Your task to perform on an android device: Open accessibility settings Image 0: 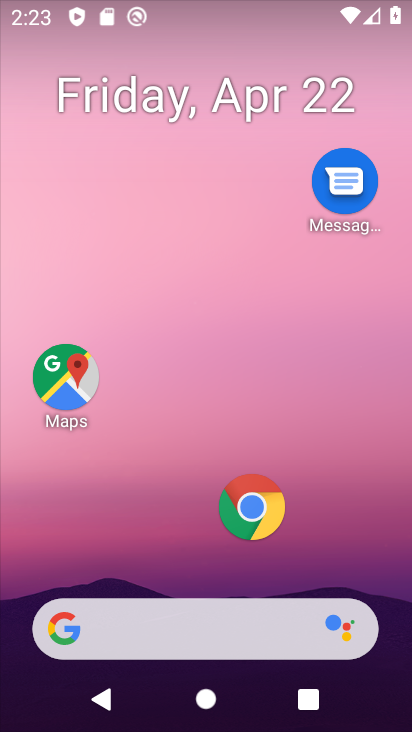
Step 0: drag from (175, 565) to (204, 78)
Your task to perform on an android device: Open accessibility settings Image 1: 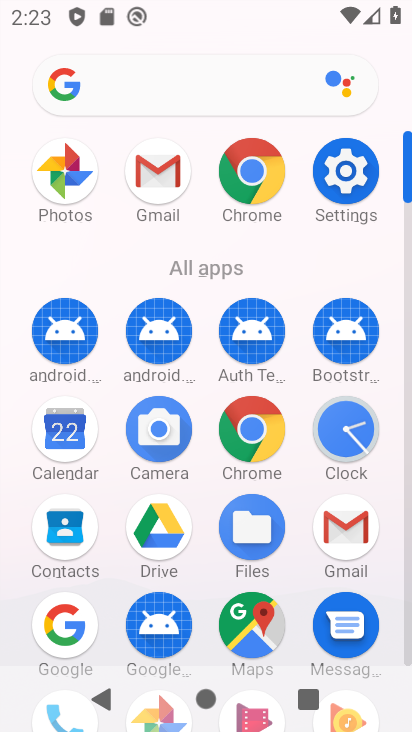
Step 1: click (344, 187)
Your task to perform on an android device: Open accessibility settings Image 2: 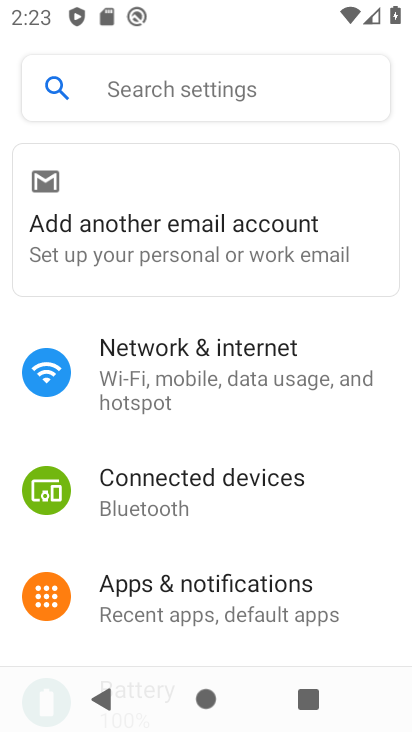
Step 2: drag from (185, 603) to (228, 416)
Your task to perform on an android device: Open accessibility settings Image 3: 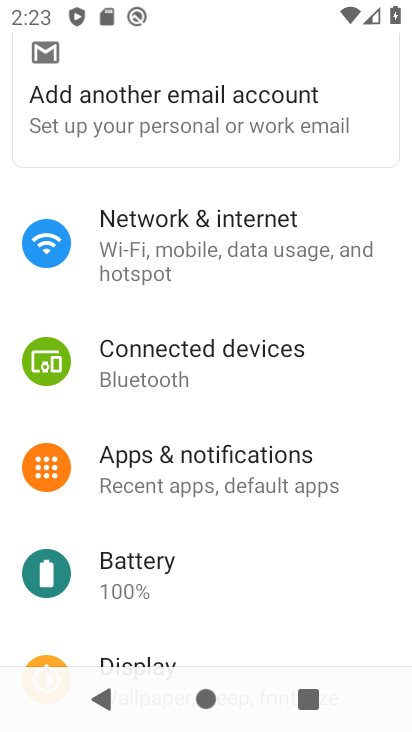
Step 3: drag from (184, 601) to (256, 185)
Your task to perform on an android device: Open accessibility settings Image 4: 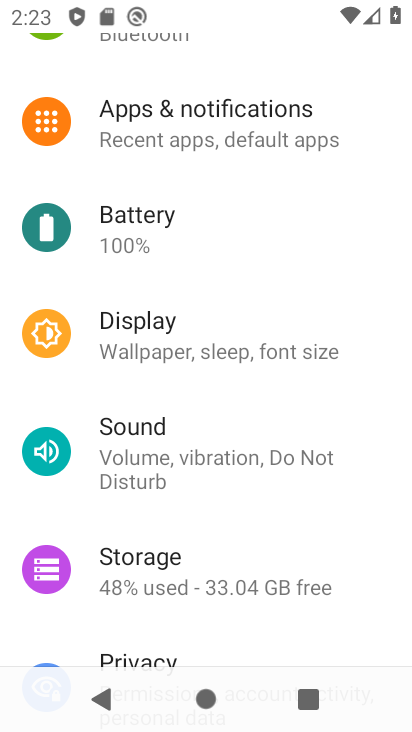
Step 4: drag from (186, 541) to (261, 27)
Your task to perform on an android device: Open accessibility settings Image 5: 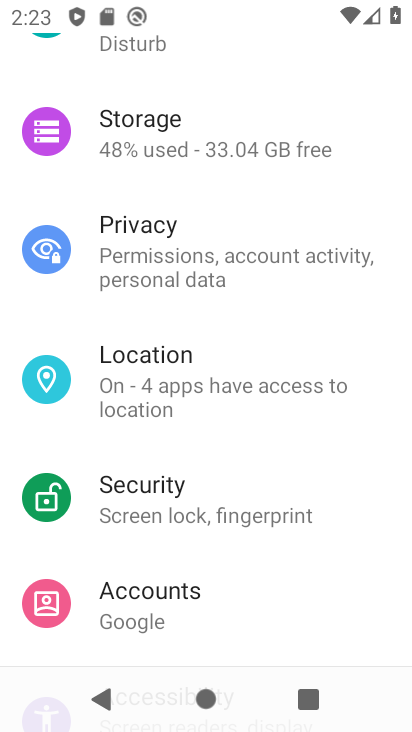
Step 5: drag from (228, 539) to (287, 108)
Your task to perform on an android device: Open accessibility settings Image 6: 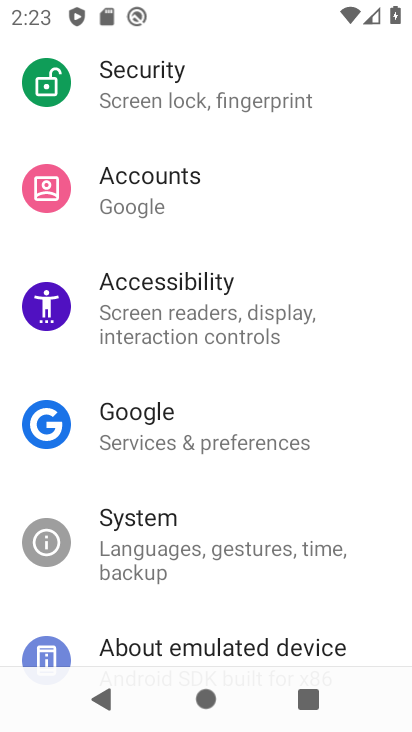
Step 6: drag from (177, 602) to (219, 308)
Your task to perform on an android device: Open accessibility settings Image 7: 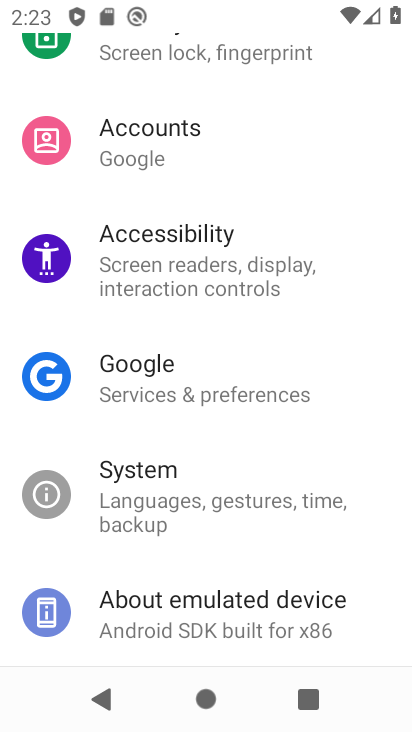
Step 7: click (191, 283)
Your task to perform on an android device: Open accessibility settings Image 8: 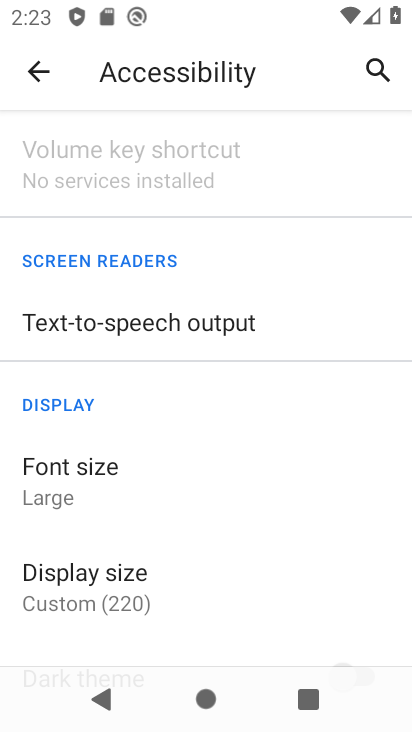
Step 8: task complete